Your task to perform on an android device: Open the phone app and click the voicemail tab. Image 0: 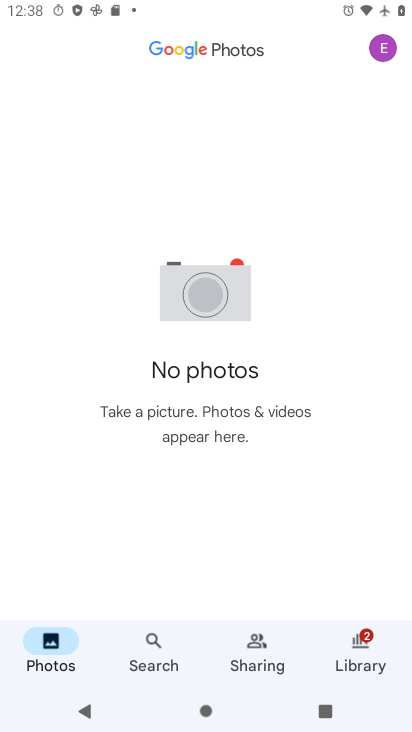
Step 0: press home button
Your task to perform on an android device: Open the phone app and click the voicemail tab. Image 1: 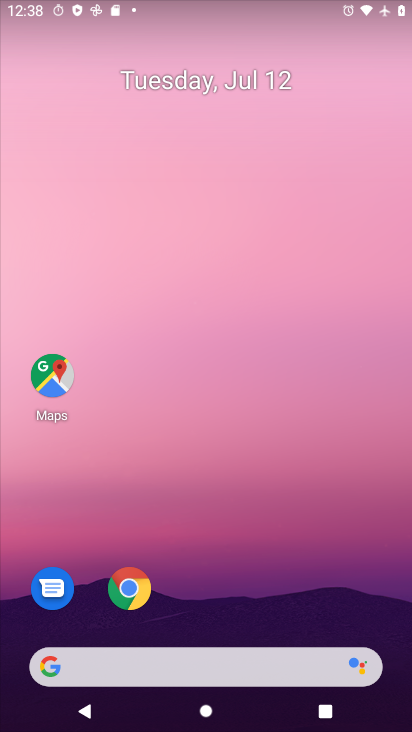
Step 1: drag from (125, 674) to (297, 42)
Your task to perform on an android device: Open the phone app and click the voicemail tab. Image 2: 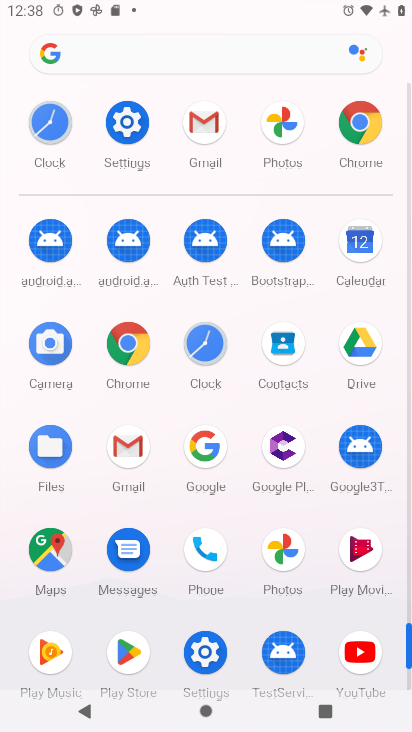
Step 2: click (207, 554)
Your task to perform on an android device: Open the phone app and click the voicemail tab. Image 3: 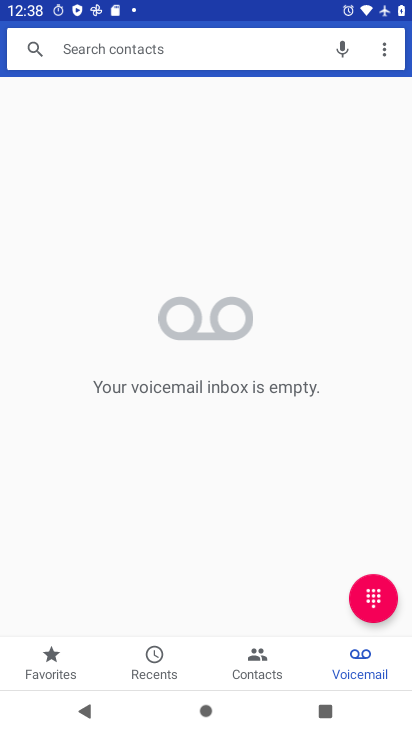
Step 3: click (355, 667)
Your task to perform on an android device: Open the phone app and click the voicemail tab. Image 4: 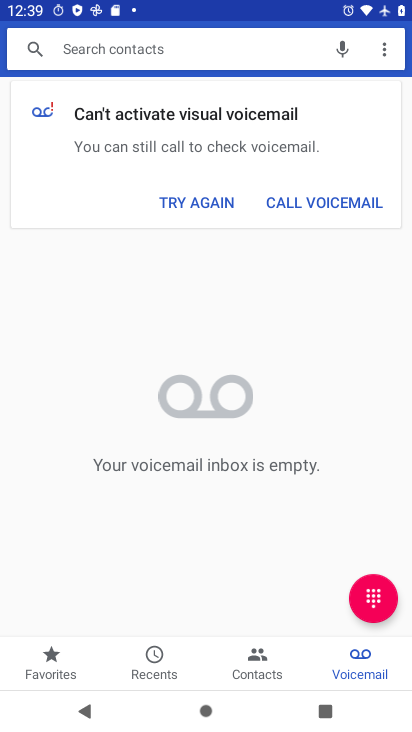
Step 4: task complete